Your task to perform on an android device: Search for bose soundlink on amazon, select the first entry, and add it to the cart. Image 0: 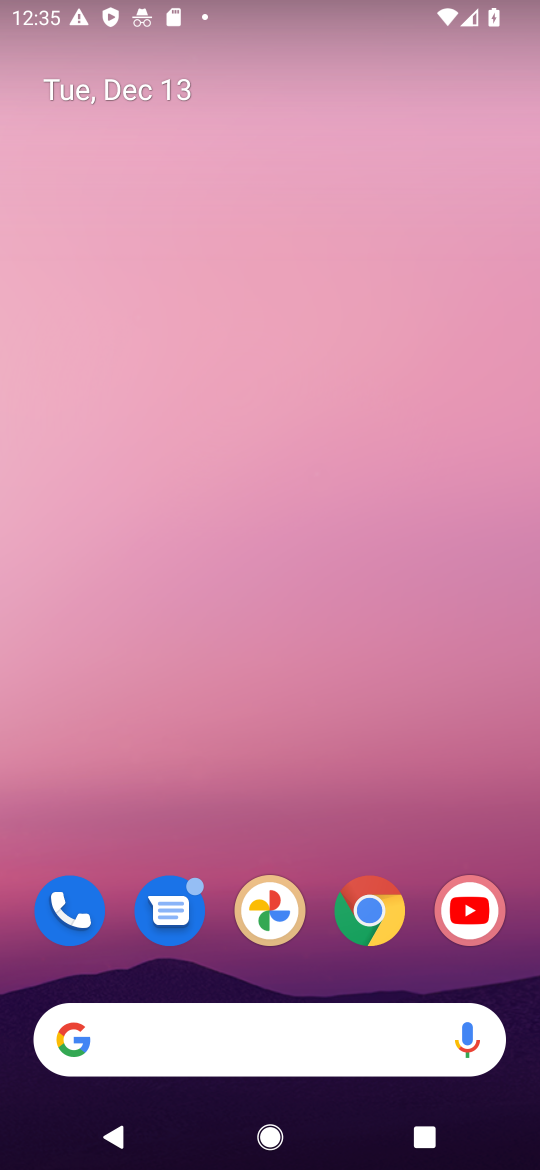
Step 0: task complete